Your task to perform on an android device: Open the web browser Image 0: 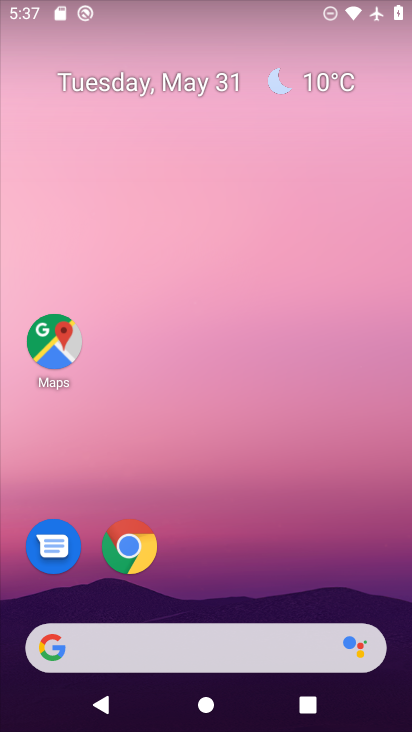
Step 0: click (145, 550)
Your task to perform on an android device: Open the web browser Image 1: 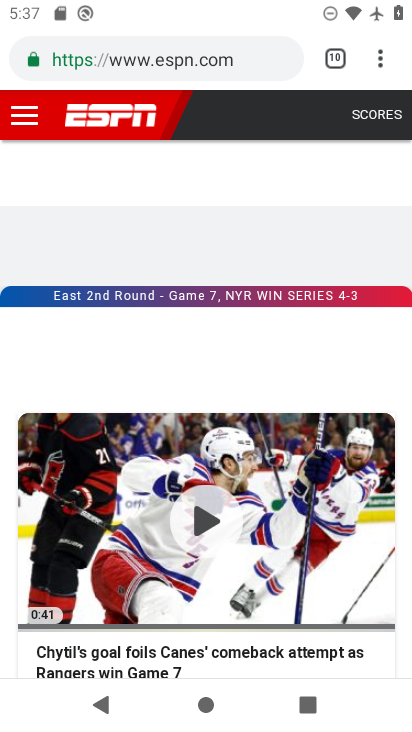
Step 1: task complete